Your task to perform on an android device: Go to Yahoo.com Image 0: 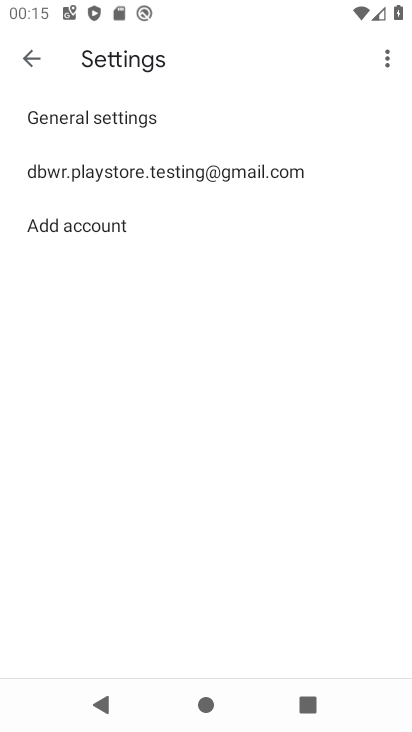
Step 0: press home button
Your task to perform on an android device: Go to Yahoo.com Image 1: 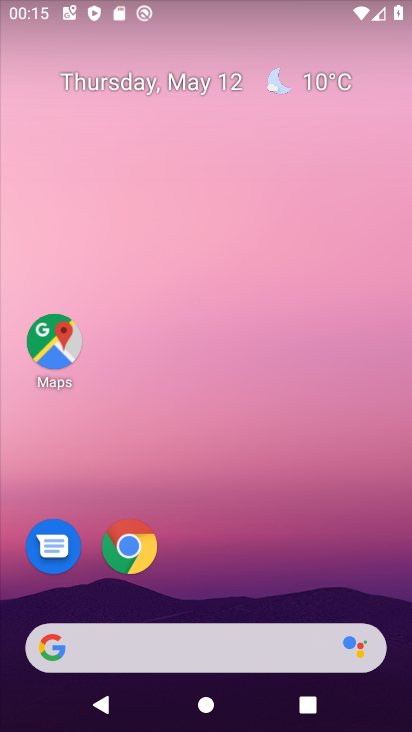
Step 1: click (129, 554)
Your task to perform on an android device: Go to Yahoo.com Image 2: 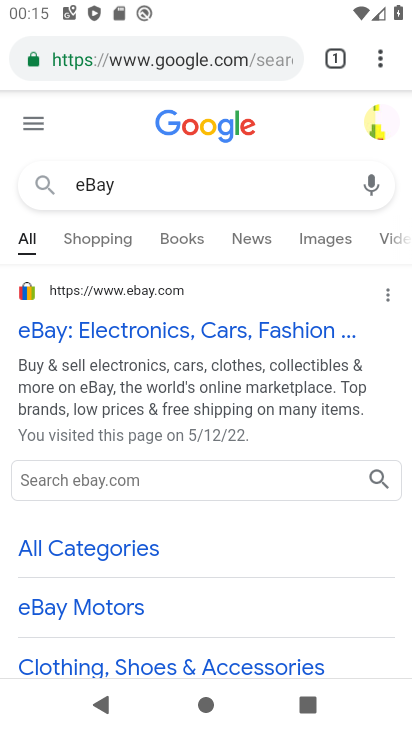
Step 2: click (112, 70)
Your task to perform on an android device: Go to Yahoo.com Image 3: 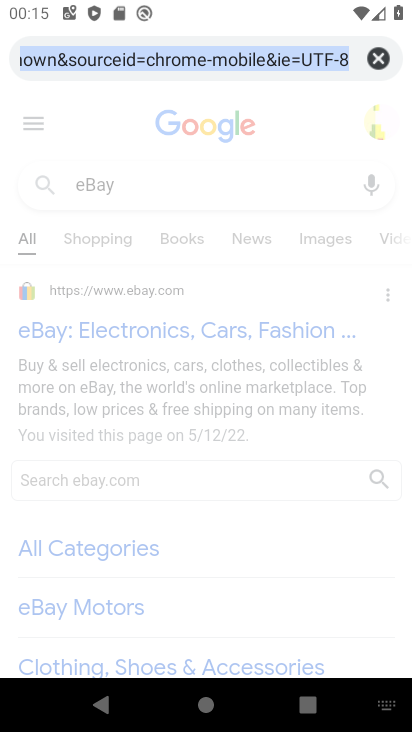
Step 3: type "Yahoo.com"
Your task to perform on an android device: Go to Yahoo.com Image 4: 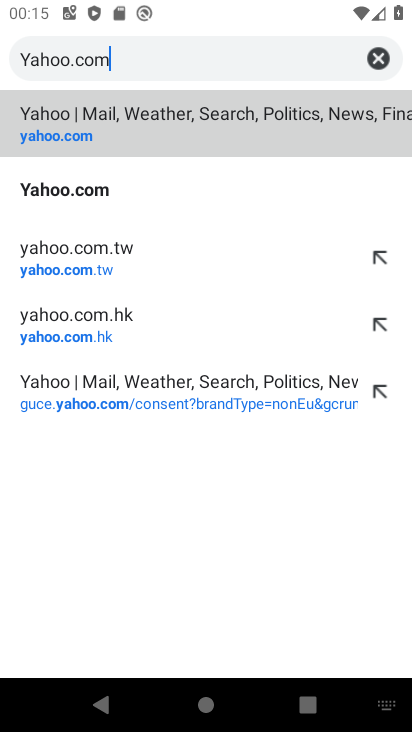
Step 4: click (98, 207)
Your task to perform on an android device: Go to Yahoo.com Image 5: 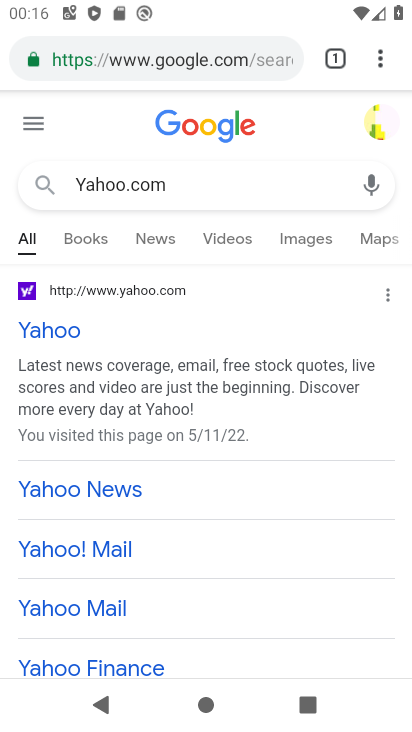
Step 5: task complete